Your task to perform on an android device: allow notifications from all sites in the chrome app Image 0: 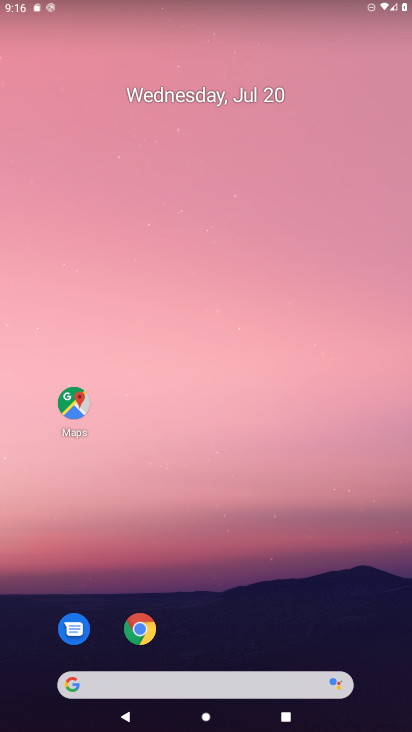
Step 0: click (141, 630)
Your task to perform on an android device: allow notifications from all sites in the chrome app Image 1: 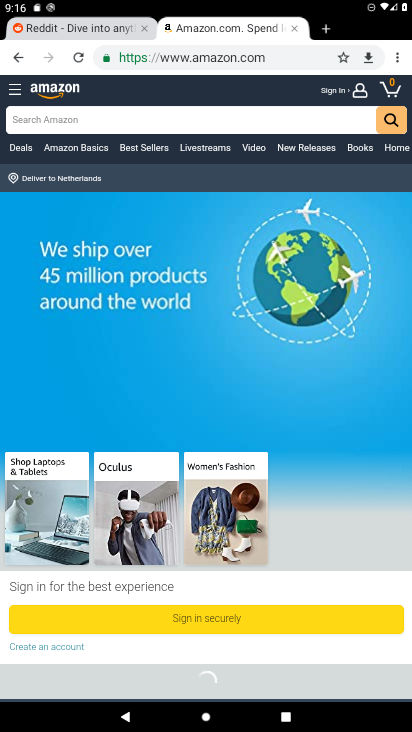
Step 1: click (396, 60)
Your task to perform on an android device: allow notifications from all sites in the chrome app Image 2: 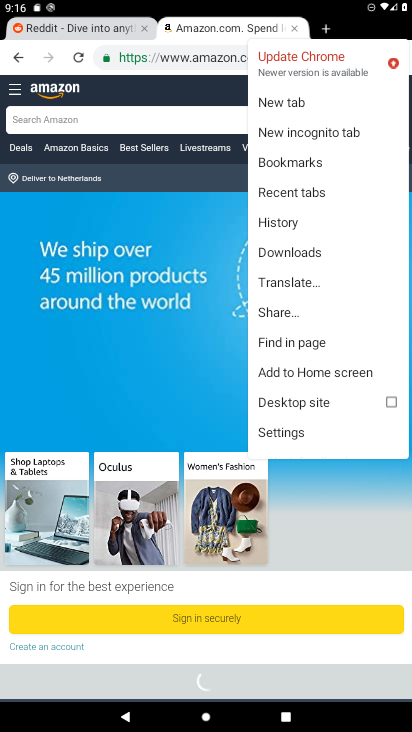
Step 2: click (280, 421)
Your task to perform on an android device: allow notifications from all sites in the chrome app Image 3: 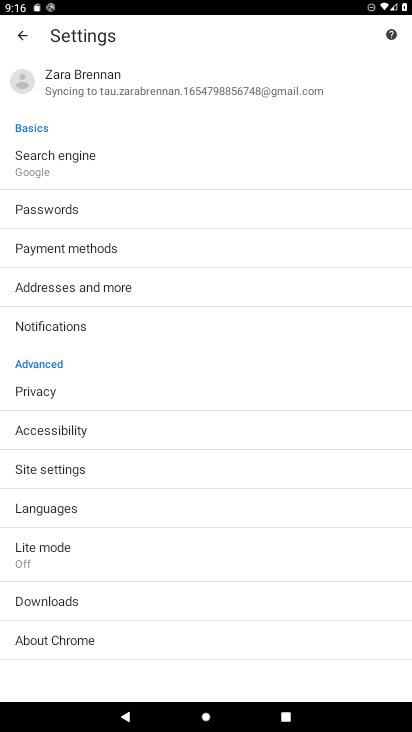
Step 3: click (50, 469)
Your task to perform on an android device: allow notifications from all sites in the chrome app Image 4: 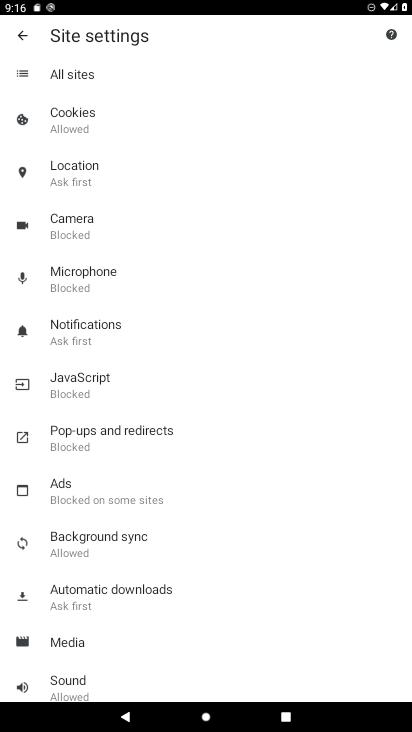
Step 4: click (71, 318)
Your task to perform on an android device: allow notifications from all sites in the chrome app Image 5: 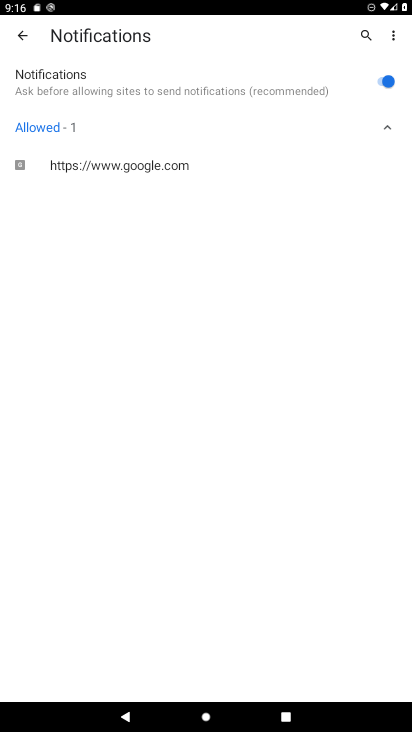
Step 5: task complete